Your task to perform on an android device: toggle javascript in the chrome app Image 0: 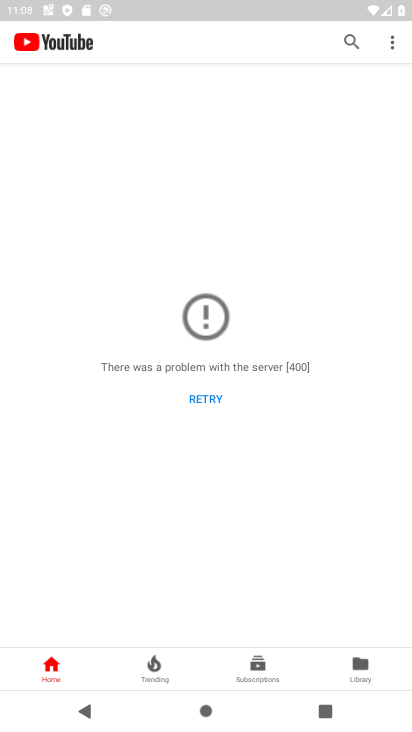
Step 0: press home button
Your task to perform on an android device: toggle javascript in the chrome app Image 1: 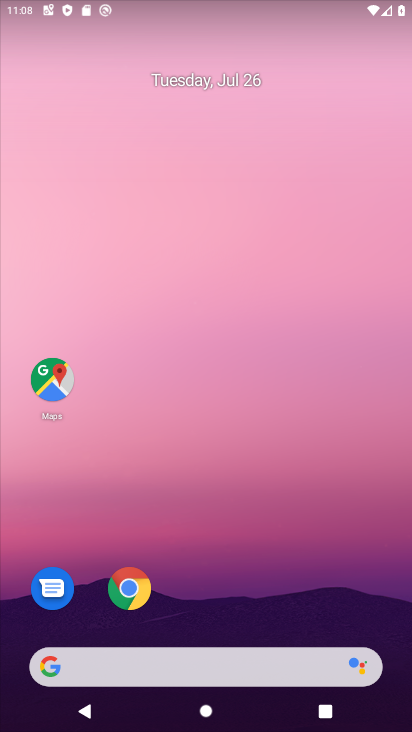
Step 1: drag from (256, 504) to (282, 26)
Your task to perform on an android device: toggle javascript in the chrome app Image 2: 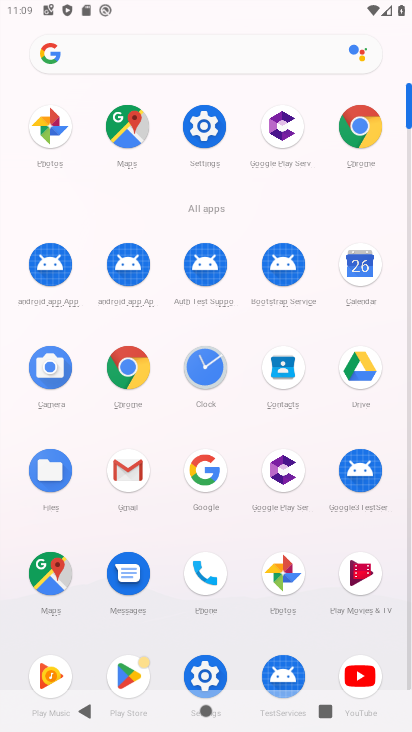
Step 2: click (374, 131)
Your task to perform on an android device: toggle javascript in the chrome app Image 3: 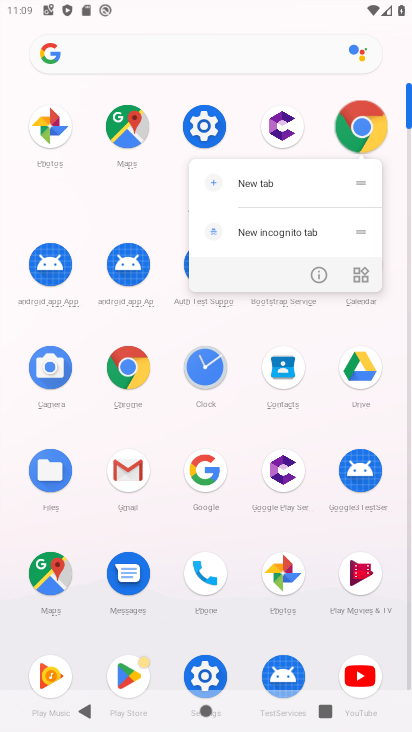
Step 3: click (374, 131)
Your task to perform on an android device: toggle javascript in the chrome app Image 4: 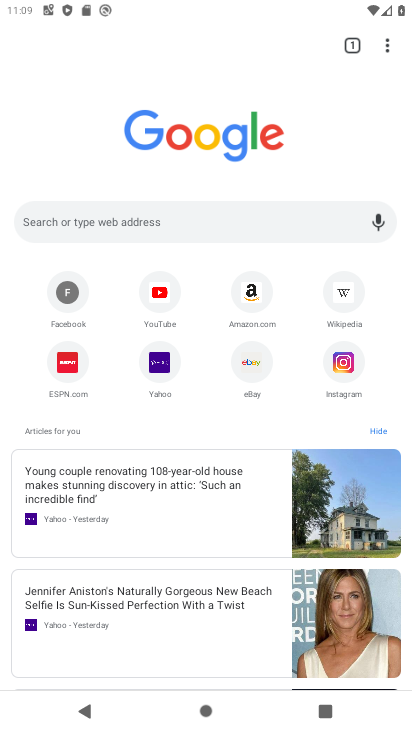
Step 4: drag from (390, 43) to (284, 376)
Your task to perform on an android device: toggle javascript in the chrome app Image 5: 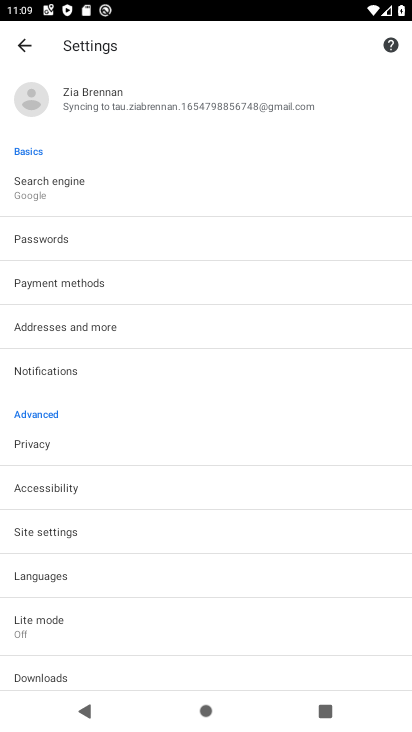
Step 5: click (76, 532)
Your task to perform on an android device: toggle javascript in the chrome app Image 6: 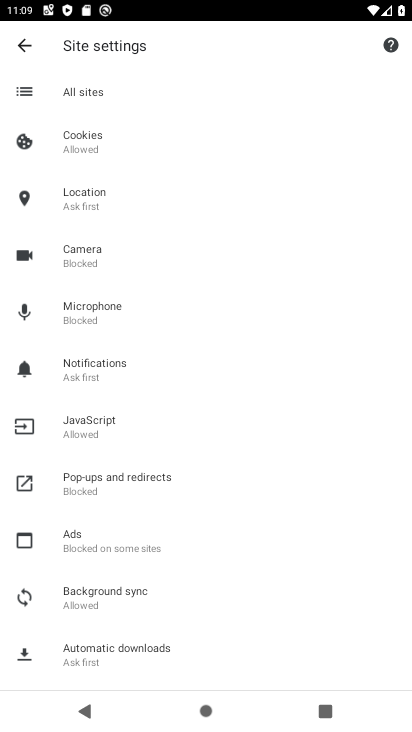
Step 6: click (93, 414)
Your task to perform on an android device: toggle javascript in the chrome app Image 7: 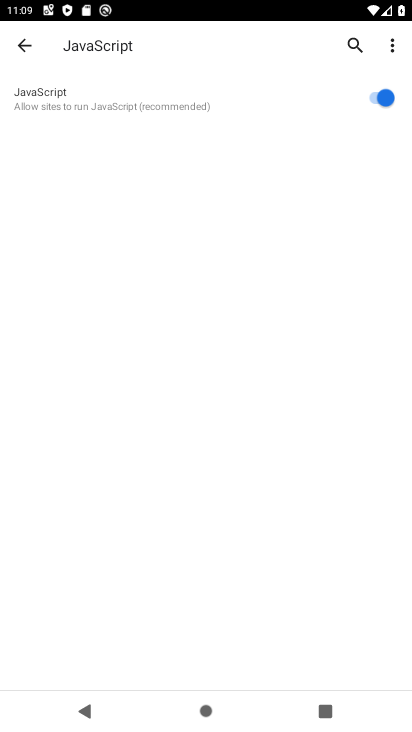
Step 7: click (220, 110)
Your task to perform on an android device: toggle javascript in the chrome app Image 8: 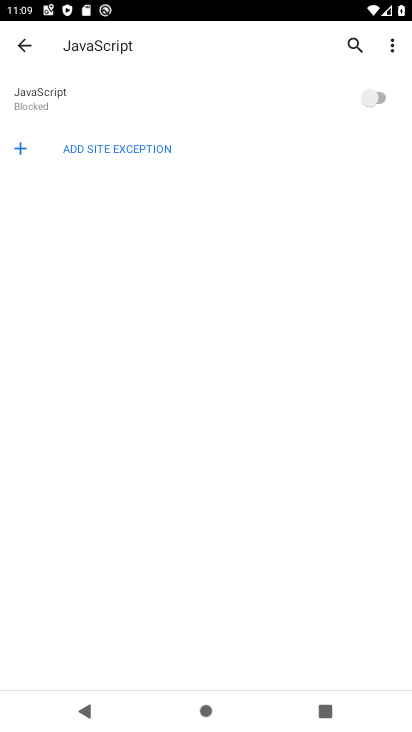
Step 8: task complete